Your task to perform on an android device: Go to privacy settings Image 0: 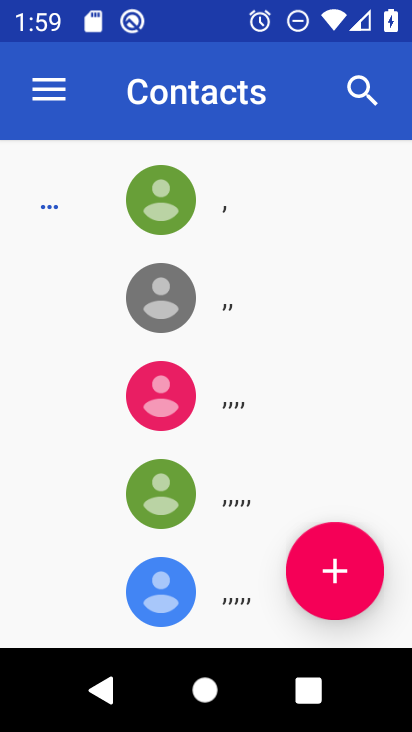
Step 0: click (60, 88)
Your task to perform on an android device: Go to privacy settings Image 1: 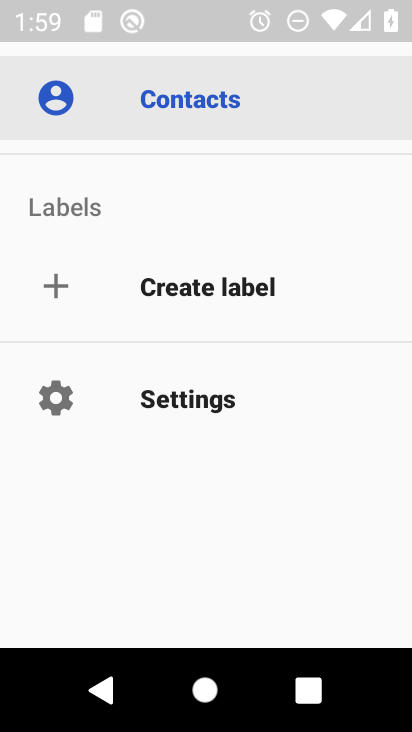
Step 1: press home button
Your task to perform on an android device: Go to privacy settings Image 2: 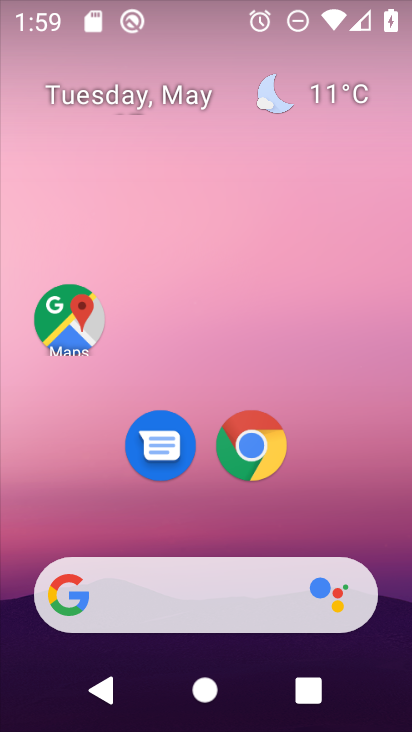
Step 2: drag from (334, 388) to (300, 12)
Your task to perform on an android device: Go to privacy settings Image 3: 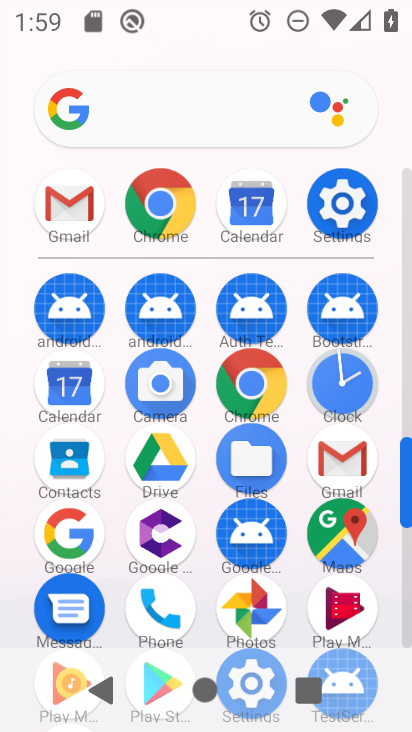
Step 3: click (341, 221)
Your task to perform on an android device: Go to privacy settings Image 4: 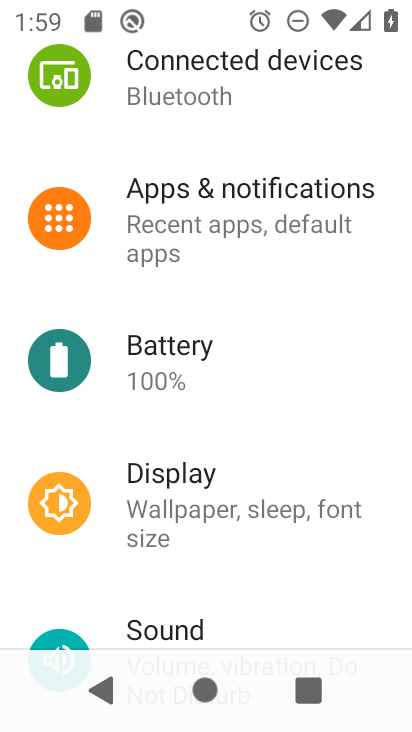
Step 4: drag from (147, 608) to (189, 66)
Your task to perform on an android device: Go to privacy settings Image 5: 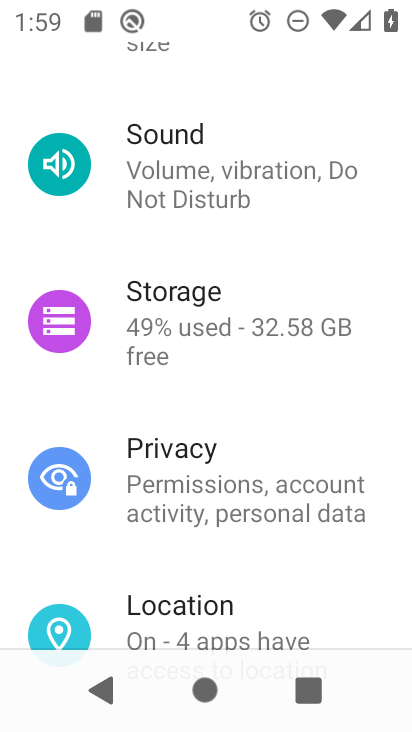
Step 5: click (217, 457)
Your task to perform on an android device: Go to privacy settings Image 6: 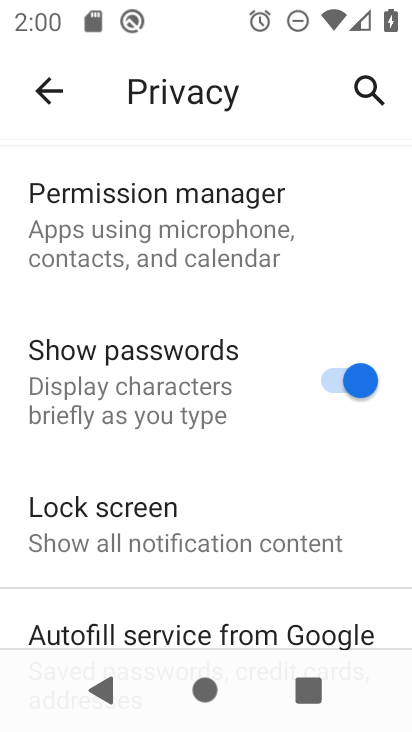
Step 6: task complete